Your task to perform on an android device: Go to battery settings Image 0: 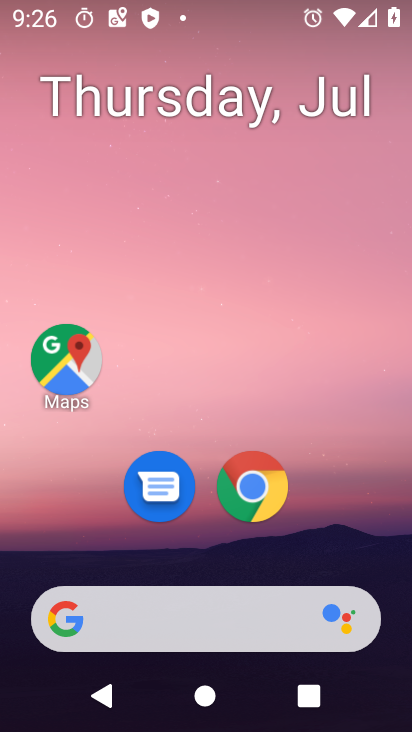
Step 0: drag from (207, 618) to (206, 28)
Your task to perform on an android device: Go to battery settings Image 1: 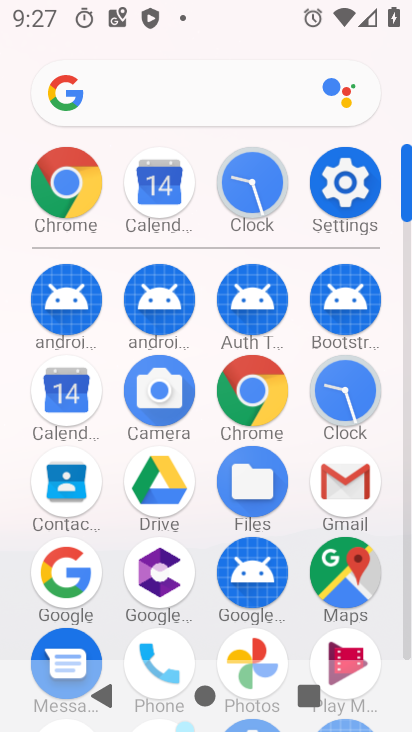
Step 1: click (345, 204)
Your task to perform on an android device: Go to battery settings Image 2: 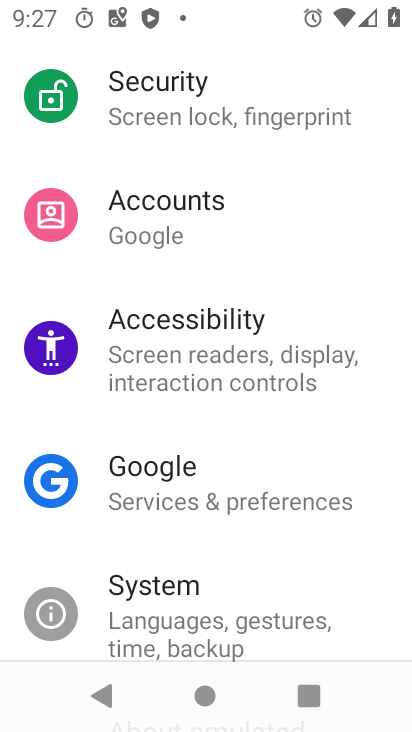
Step 2: drag from (240, 260) to (171, 625)
Your task to perform on an android device: Go to battery settings Image 3: 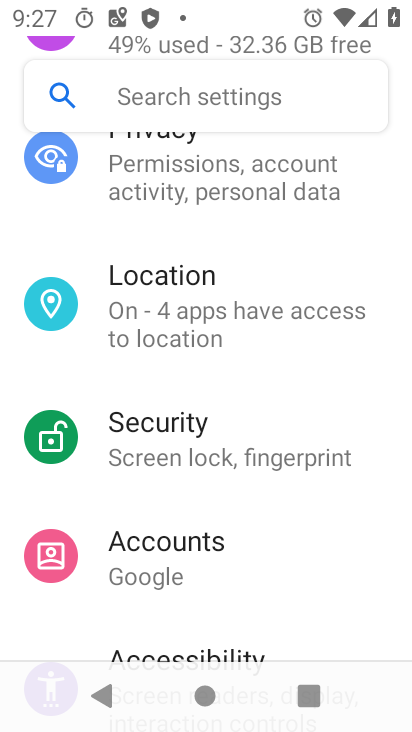
Step 3: drag from (210, 370) to (157, 716)
Your task to perform on an android device: Go to battery settings Image 4: 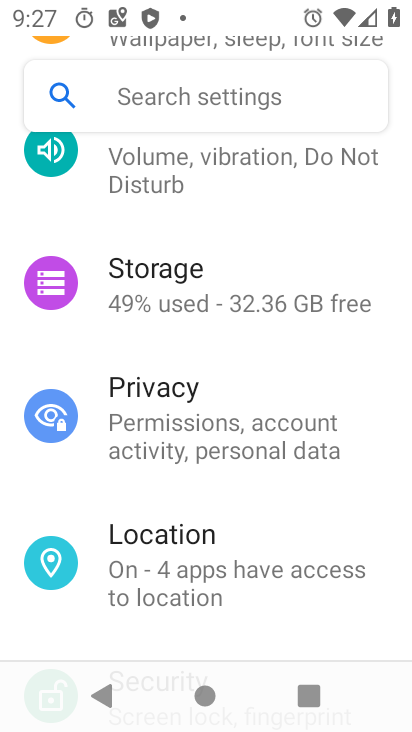
Step 4: drag from (157, 276) to (124, 650)
Your task to perform on an android device: Go to battery settings Image 5: 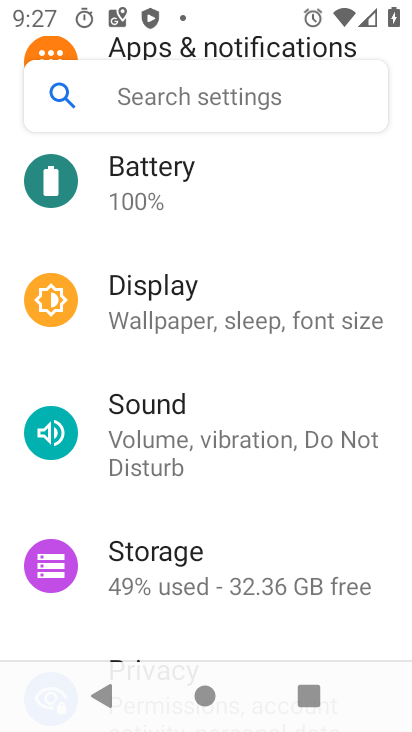
Step 5: click (155, 178)
Your task to perform on an android device: Go to battery settings Image 6: 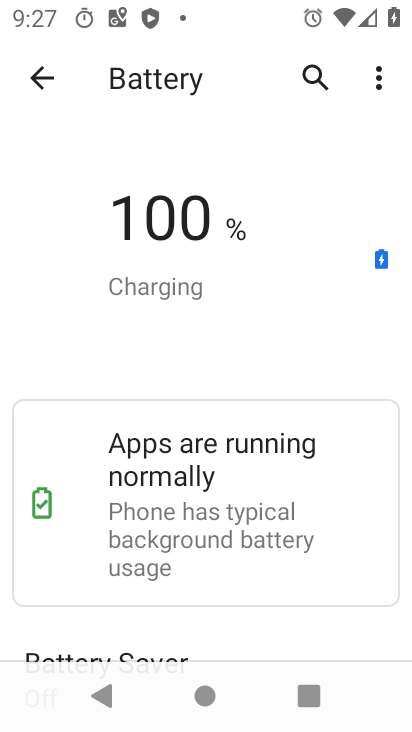
Step 6: task complete